Your task to perform on an android device: Open calendar and show me the second week of next month Image 0: 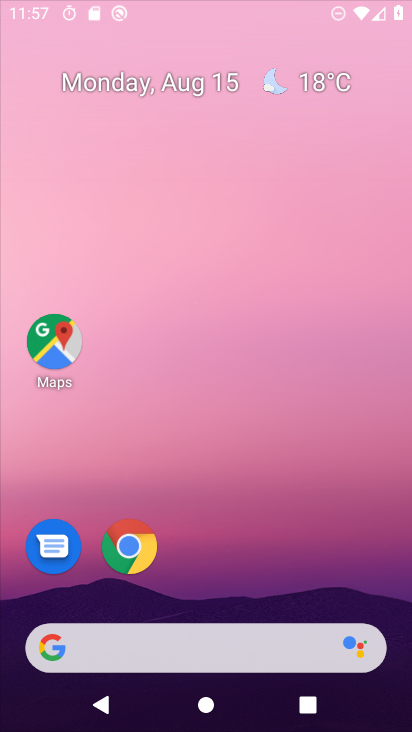
Step 0: drag from (243, 230) to (232, 39)
Your task to perform on an android device: Open calendar and show me the second week of next month Image 1: 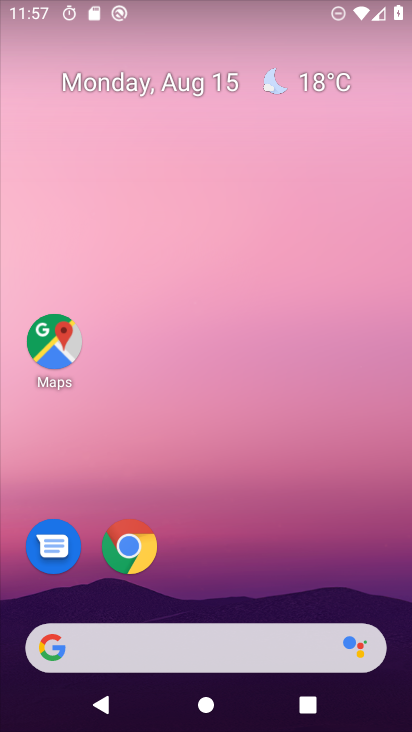
Step 1: drag from (228, 596) to (148, 34)
Your task to perform on an android device: Open calendar and show me the second week of next month Image 2: 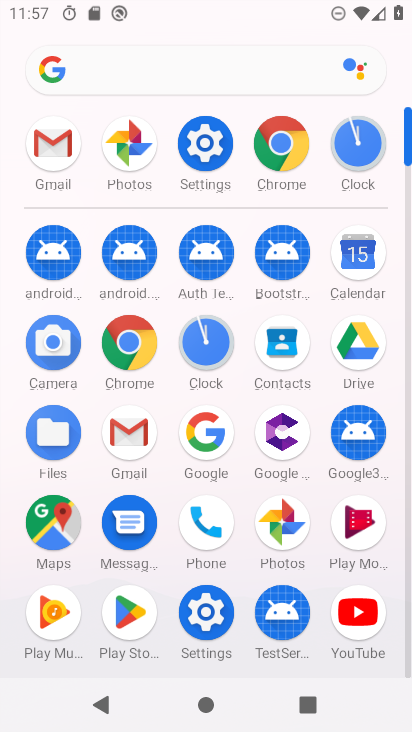
Step 2: click (356, 261)
Your task to perform on an android device: Open calendar and show me the second week of next month Image 3: 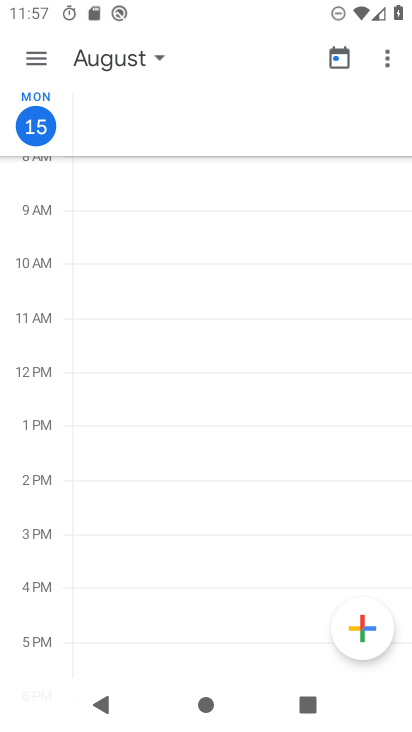
Step 3: click (154, 54)
Your task to perform on an android device: Open calendar and show me the second week of next month Image 4: 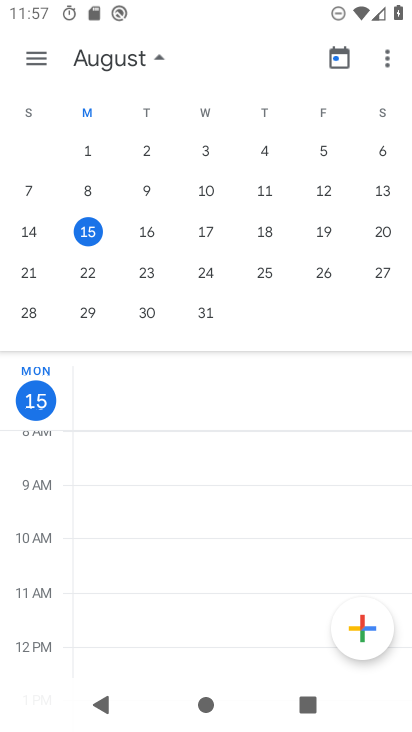
Step 4: drag from (380, 222) to (0, 237)
Your task to perform on an android device: Open calendar and show me the second week of next month Image 5: 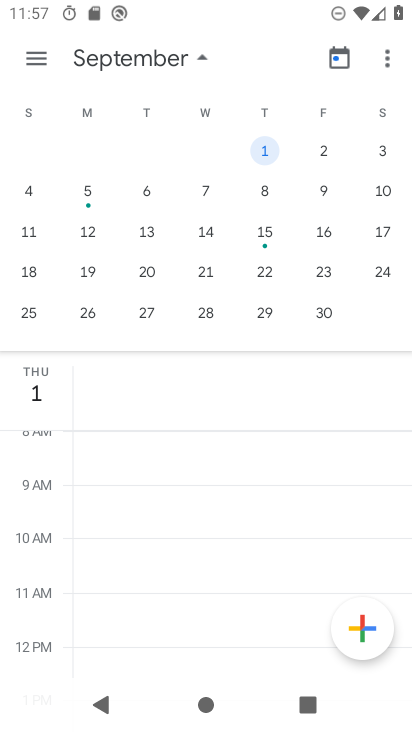
Step 5: click (86, 224)
Your task to perform on an android device: Open calendar and show me the second week of next month Image 6: 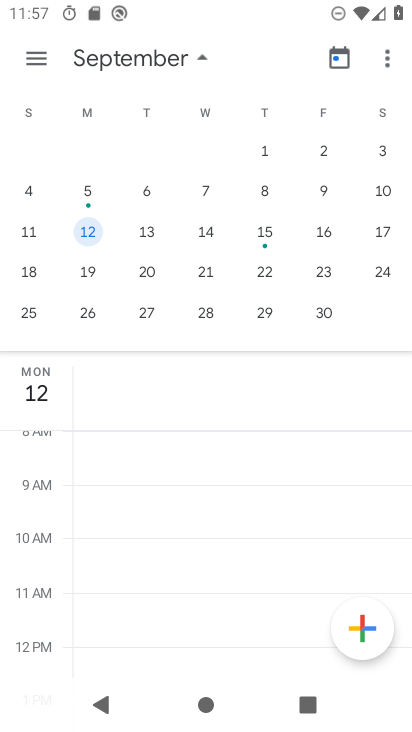
Step 6: click (38, 48)
Your task to perform on an android device: Open calendar and show me the second week of next month Image 7: 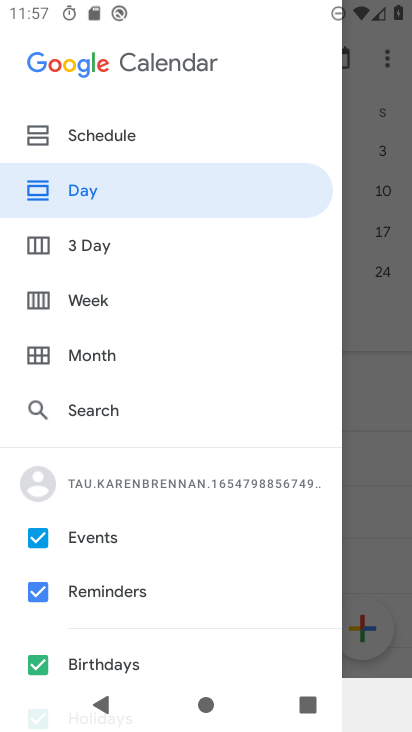
Step 7: click (85, 297)
Your task to perform on an android device: Open calendar and show me the second week of next month Image 8: 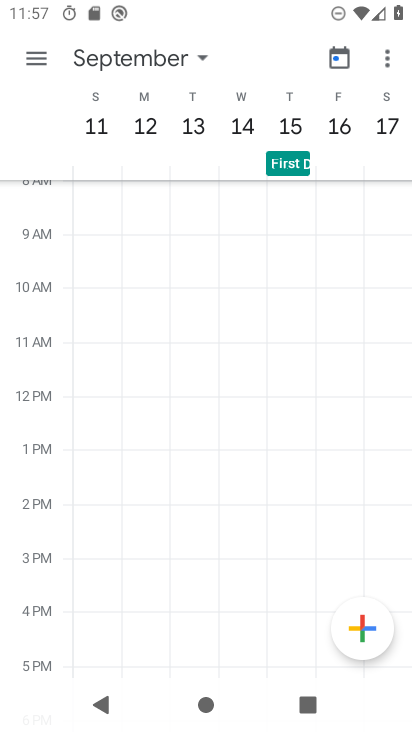
Step 8: task complete